Your task to perform on an android device: Play the new Taylor Swift video on YouTube Image 0: 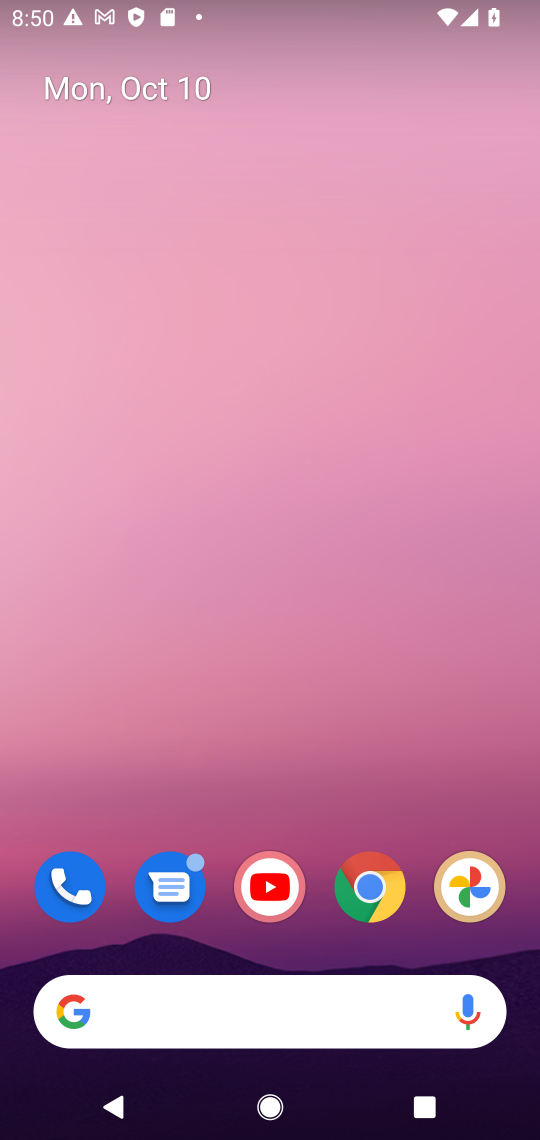
Step 0: click (280, 895)
Your task to perform on an android device: Play the new Taylor Swift video on YouTube Image 1: 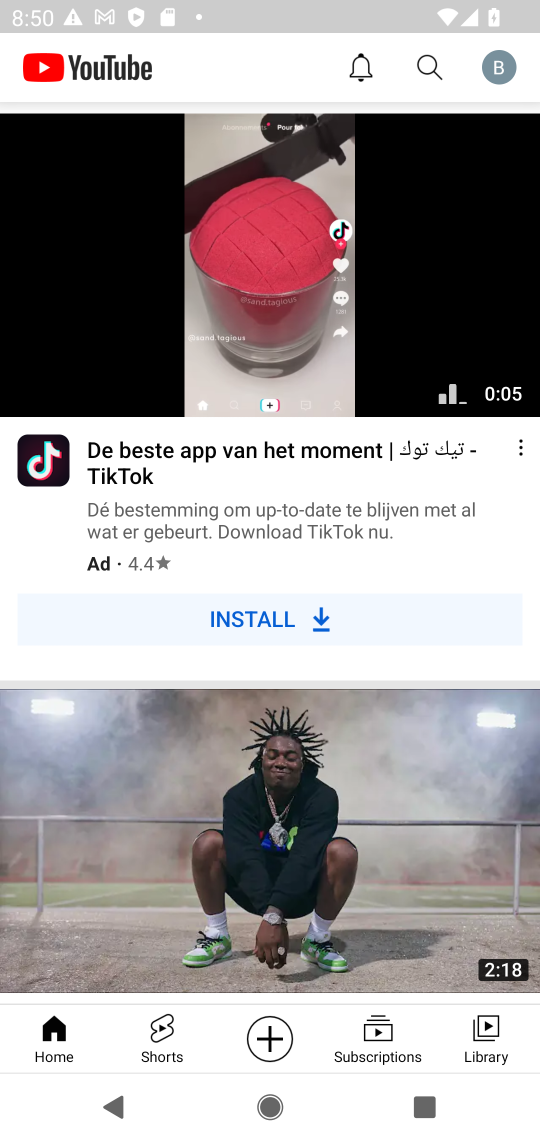
Step 1: click (439, 66)
Your task to perform on an android device: Play the new Taylor Swift video on YouTube Image 2: 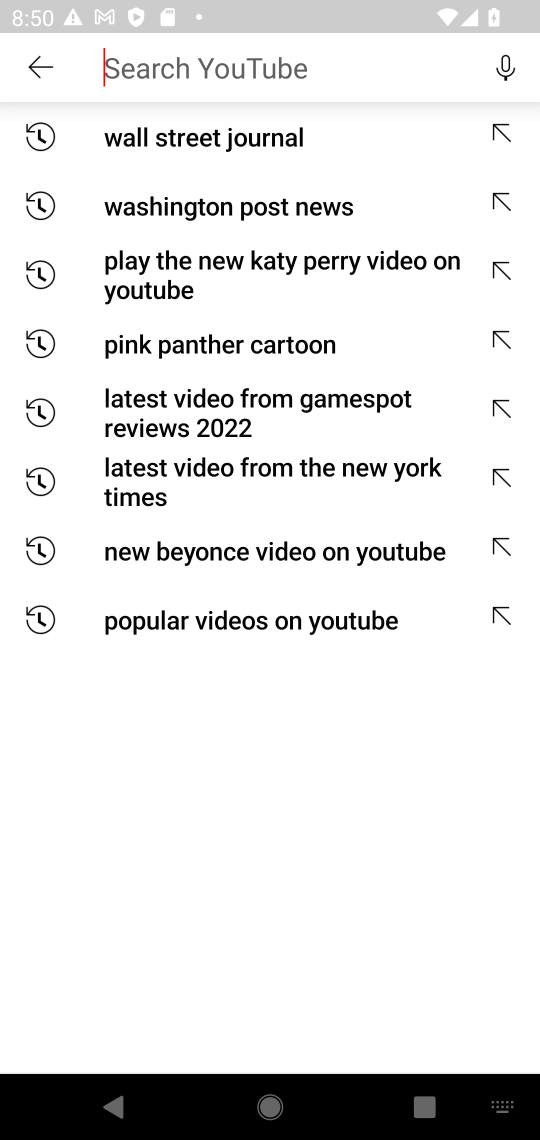
Step 2: type "taylor swift"
Your task to perform on an android device: Play the new Taylor Swift video on YouTube Image 3: 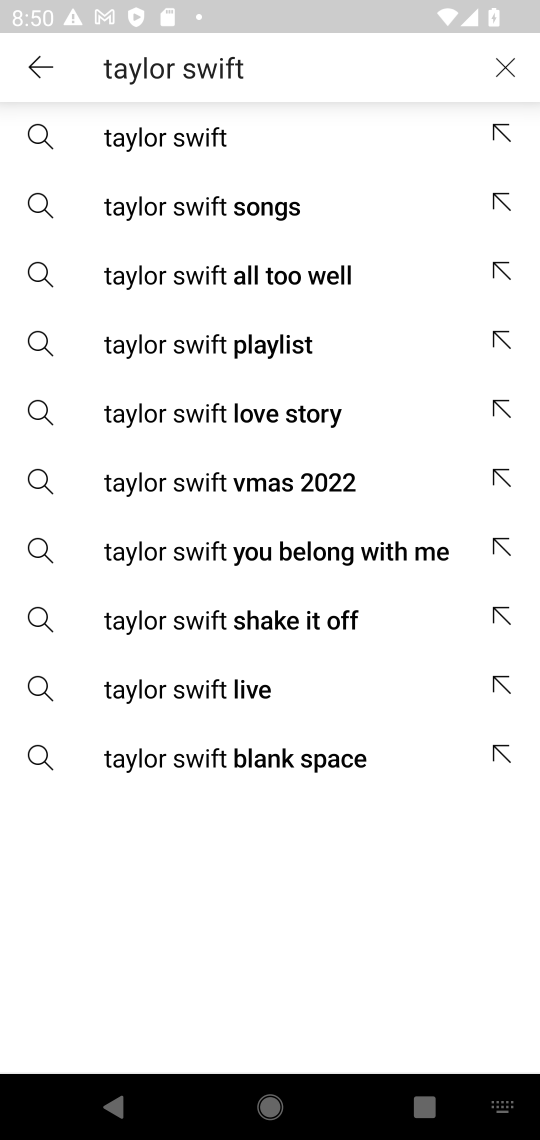
Step 3: click (284, 133)
Your task to perform on an android device: Play the new Taylor Swift video on YouTube Image 4: 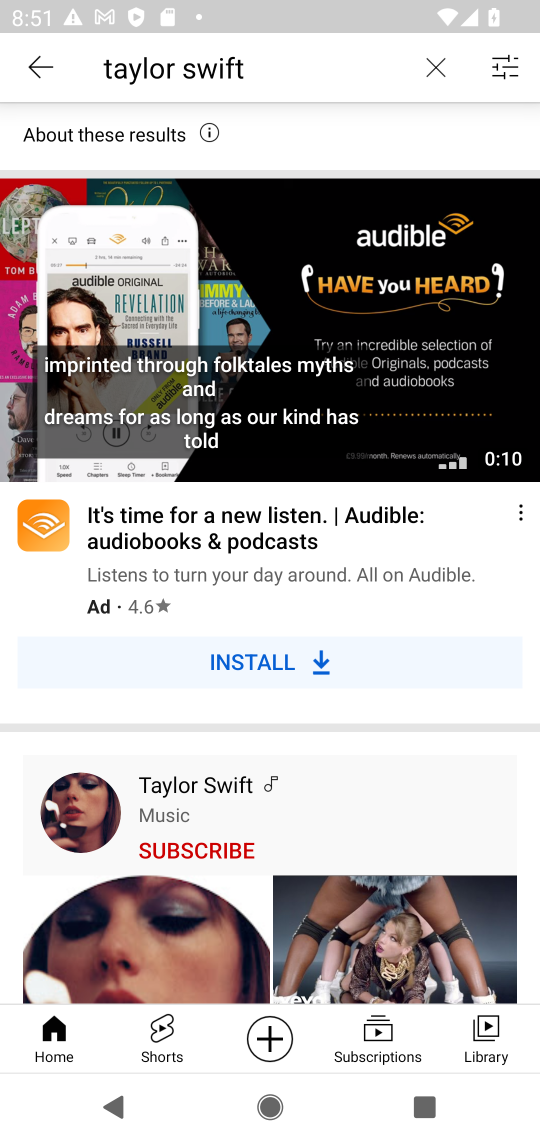
Step 4: click (139, 788)
Your task to perform on an android device: Play the new Taylor Swift video on YouTube Image 5: 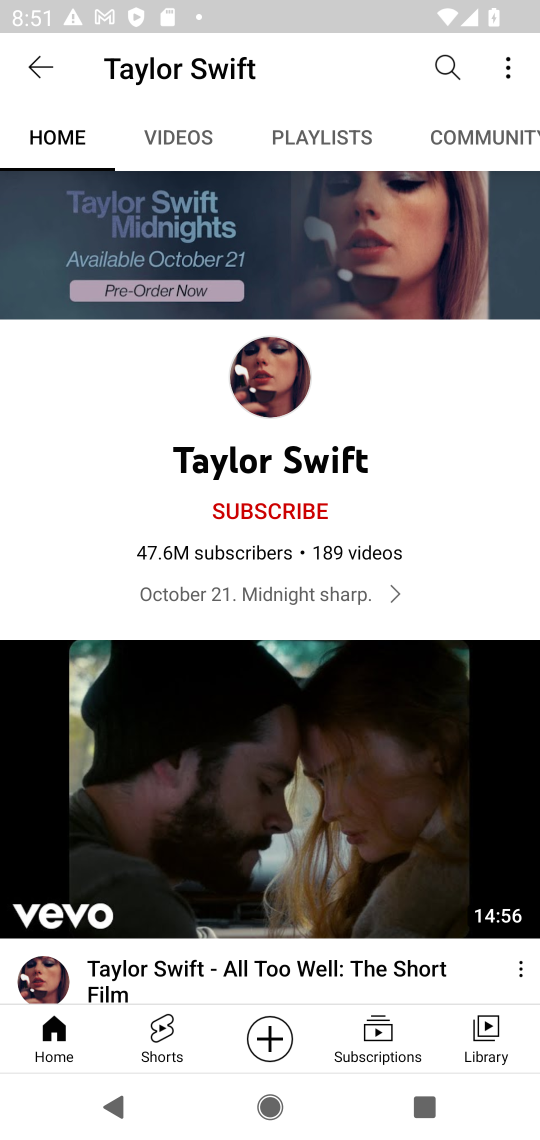
Step 5: click (170, 134)
Your task to perform on an android device: Play the new Taylor Swift video on YouTube Image 6: 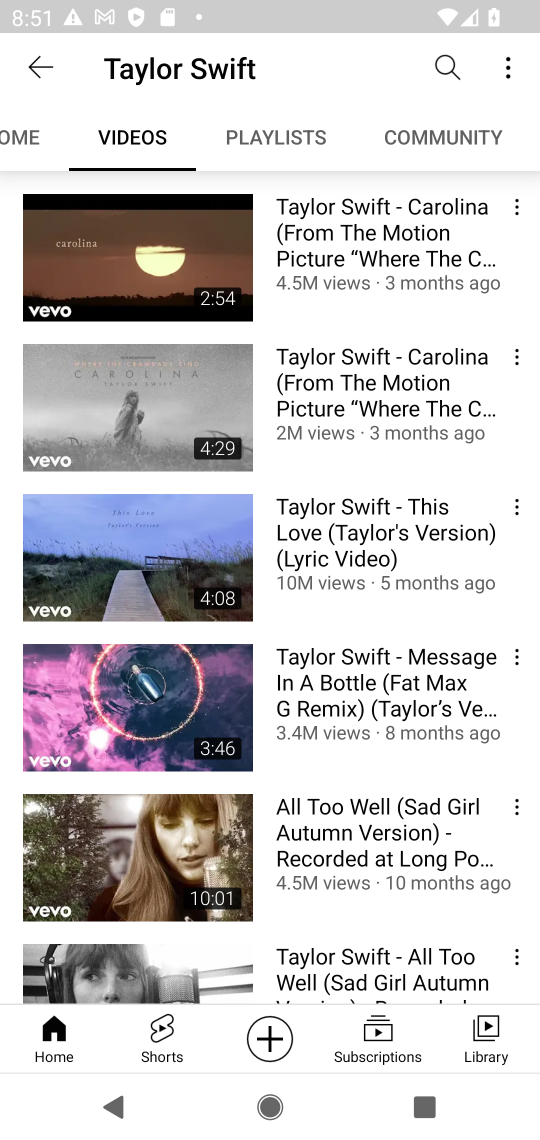
Step 6: click (394, 265)
Your task to perform on an android device: Play the new Taylor Swift video on YouTube Image 7: 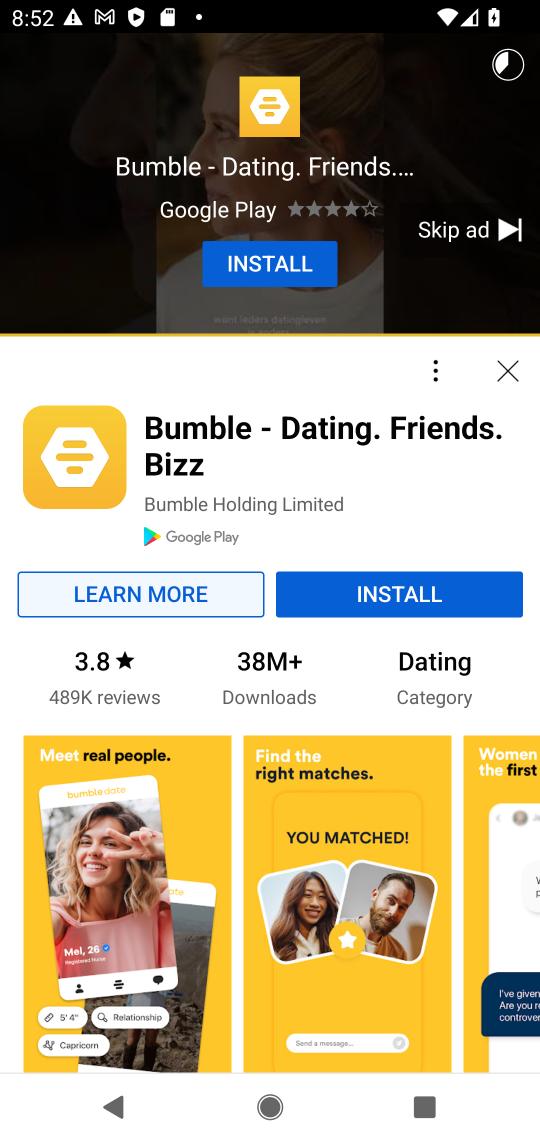
Step 7: click (476, 226)
Your task to perform on an android device: Play the new Taylor Swift video on YouTube Image 8: 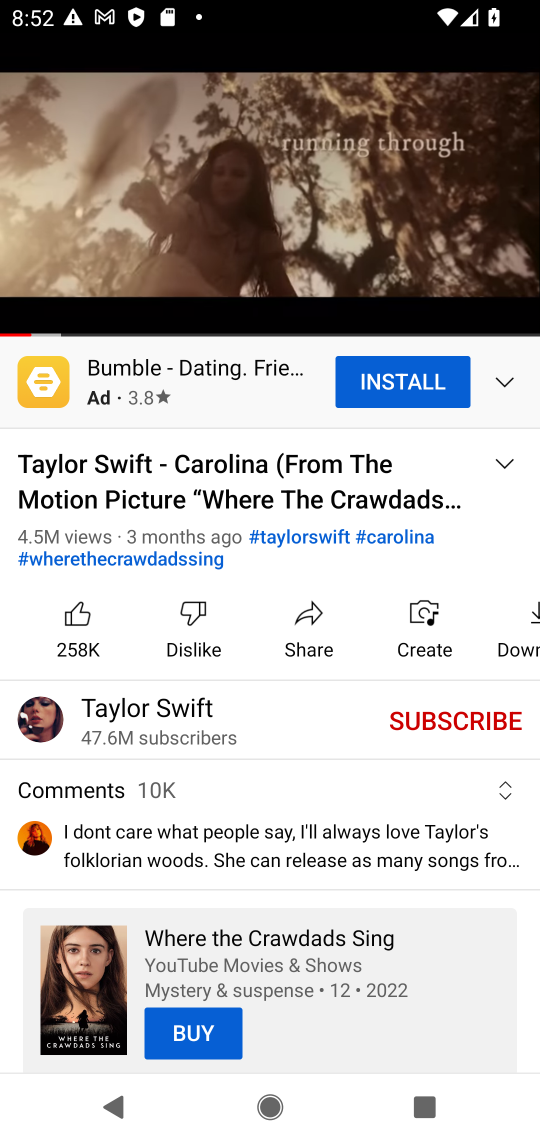
Step 8: task complete